Your task to perform on an android device: What's the weather today? Image 0: 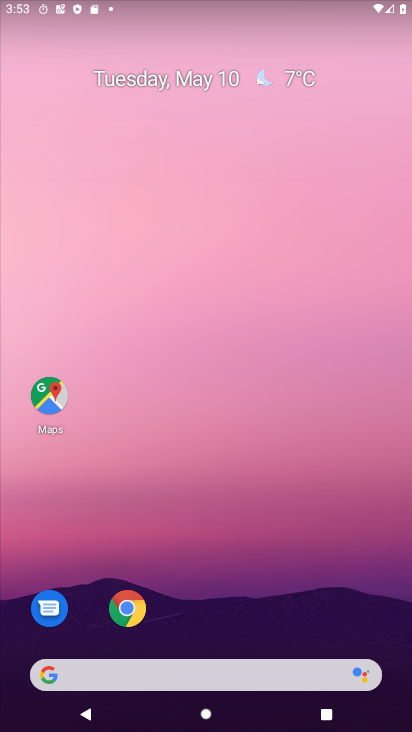
Step 0: click (304, 85)
Your task to perform on an android device: What's the weather today? Image 1: 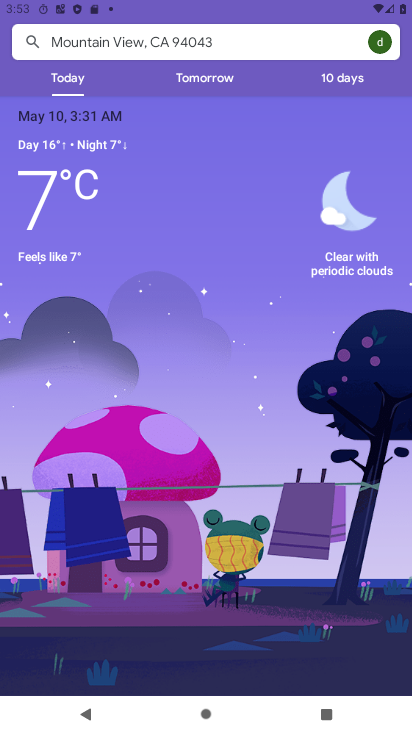
Step 1: task complete